Your task to perform on an android device: Go to privacy settings Image 0: 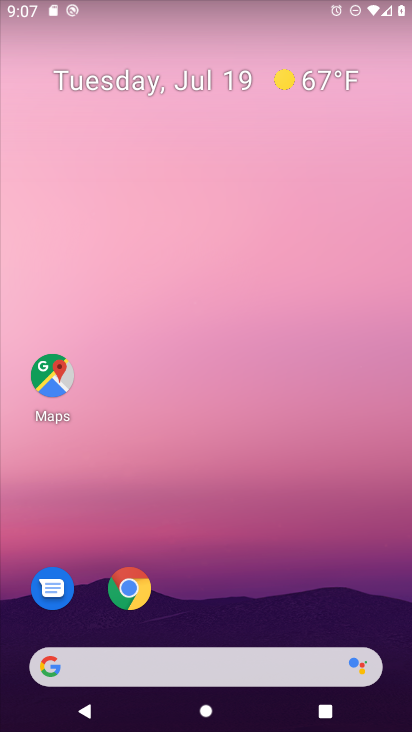
Step 0: drag from (344, 610) to (334, 152)
Your task to perform on an android device: Go to privacy settings Image 1: 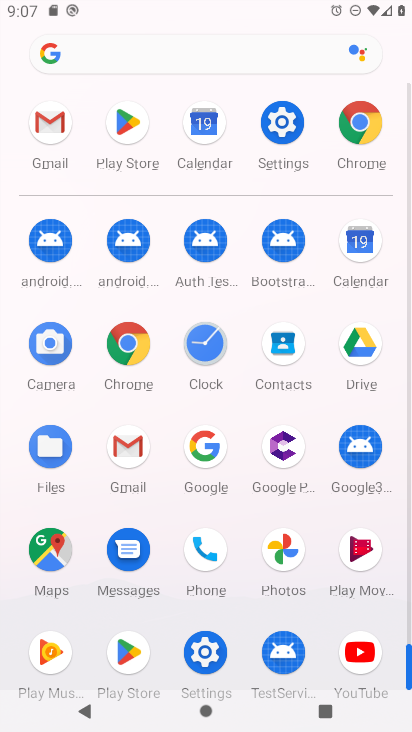
Step 1: click (299, 150)
Your task to perform on an android device: Go to privacy settings Image 2: 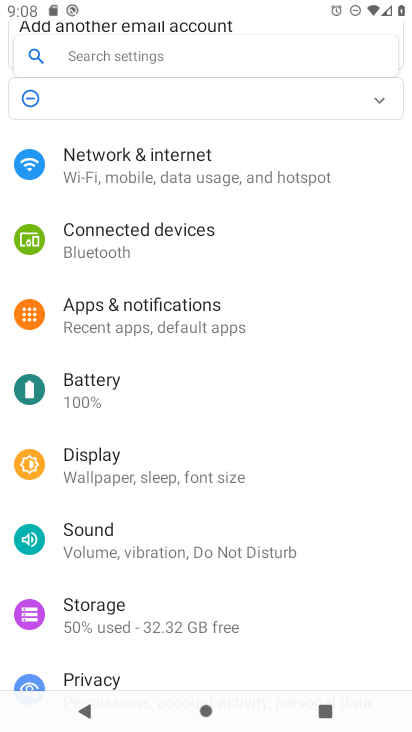
Step 2: drag from (338, 432) to (335, 326)
Your task to perform on an android device: Go to privacy settings Image 3: 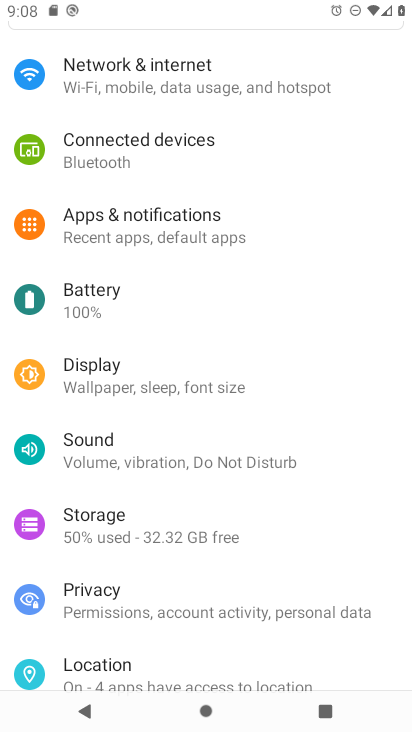
Step 3: drag from (326, 452) to (331, 285)
Your task to perform on an android device: Go to privacy settings Image 4: 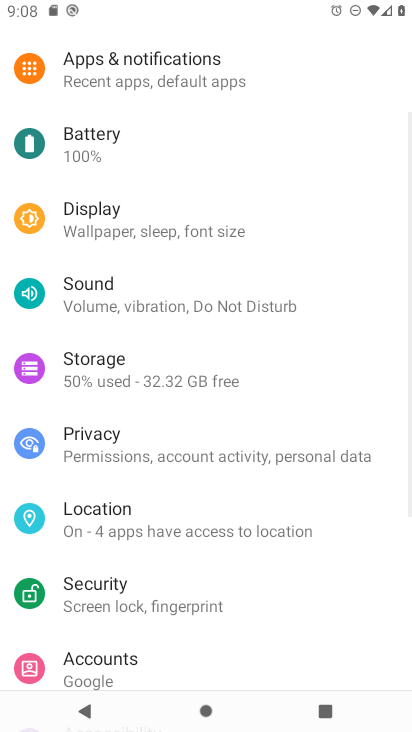
Step 4: drag from (338, 356) to (343, 237)
Your task to perform on an android device: Go to privacy settings Image 5: 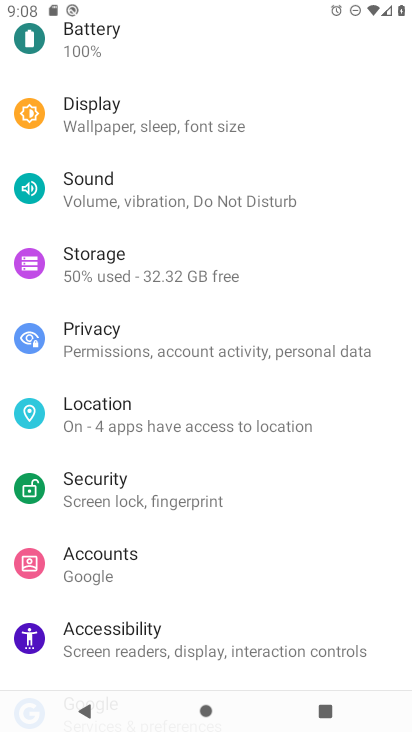
Step 5: drag from (349, 465) to (349, 352)
Your task to perform on an android device: Go to privacy settings Image 6: 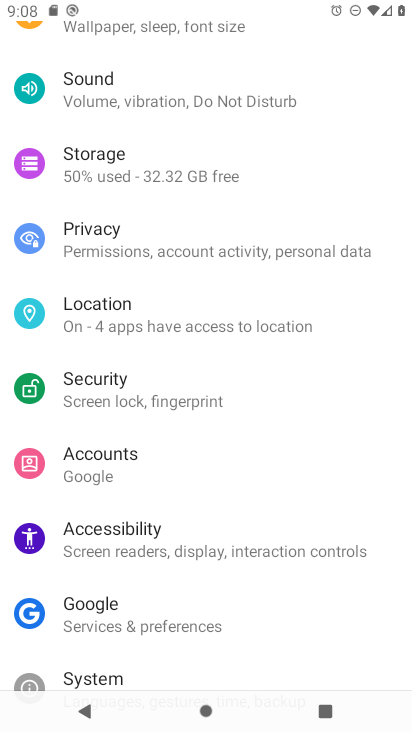
Step 6: drag from (332, 449) to (334, 399)
Your task to perform on an android device: Go to privacy settings Image 7: 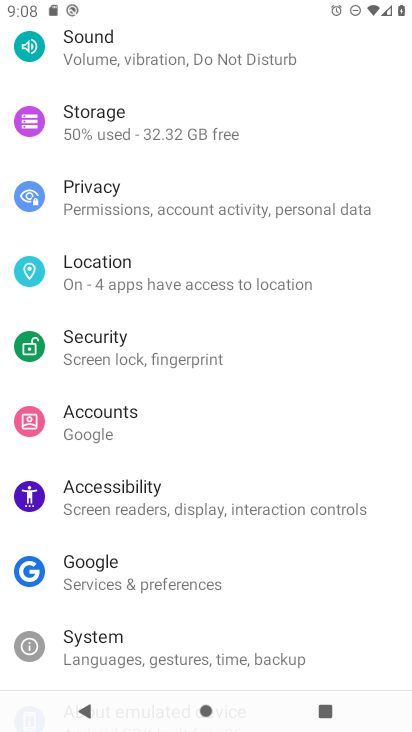
Step 7: drag from (330, 279) to (340, 380)
Your task to perform on an android device: Go to privacy settings Image 8: 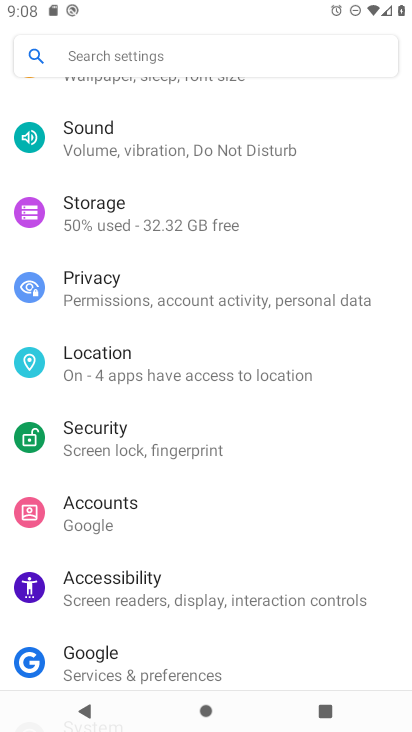
Step 8: drag from (343, 340) to (351, 458)
Your task to perform on an android device: Go to privacy settings Image 9: 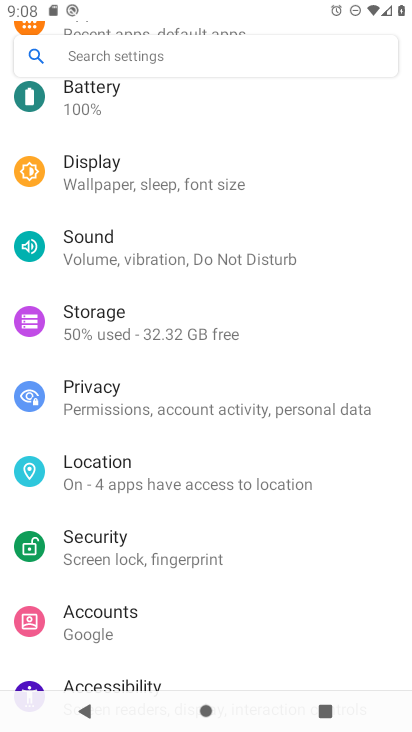
Step 9: drag from (347, 328) to (355, 455)
Your task to perform on an android device: Go to privacy settings Image 10: 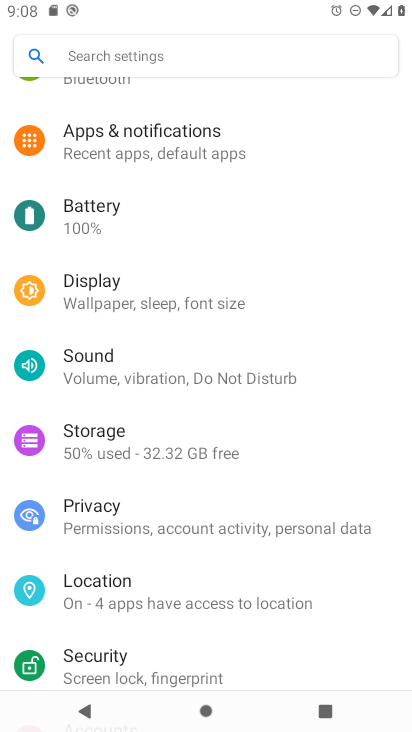
Step 10: click (338, 502)
Your task to perform on an android device: Go to privacy settings Image 11: 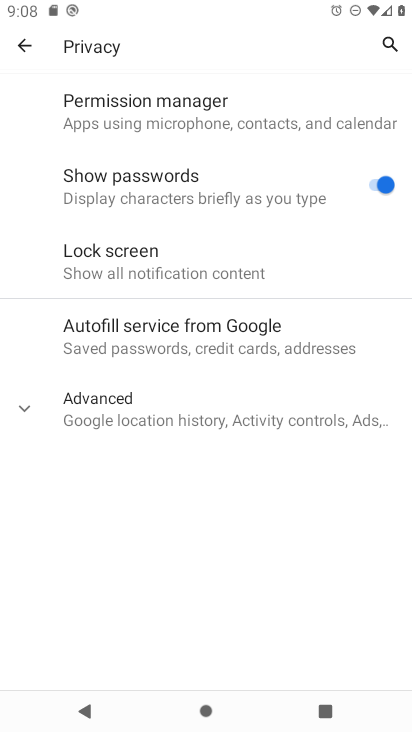
Step 11: task complete